Your task to perform on an android device: Open accessibility settings Image 0: 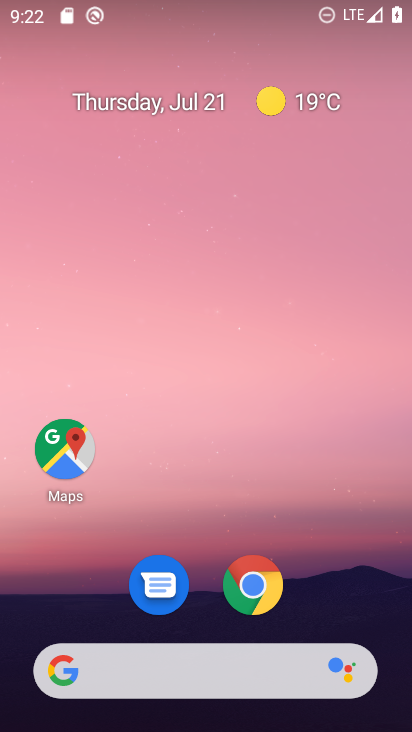
Step 0: drag from (337, 587) to (331, 32)
Your task to perform on an android device: Open accessibility settings Image 1: 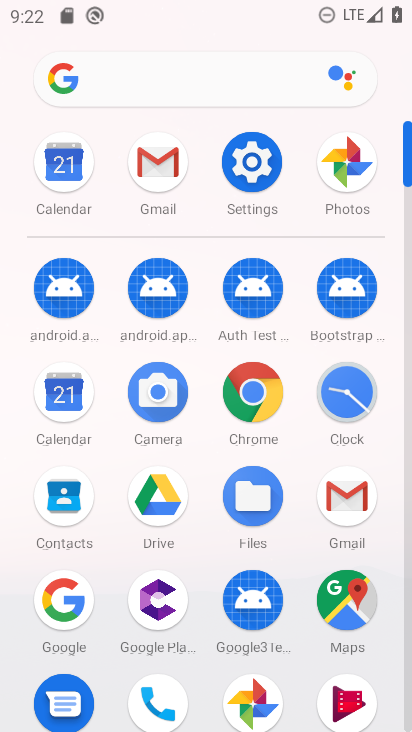
Step 1: click (262, 166)
Your task to perform on an android device: Open accessibility settings Image 2: 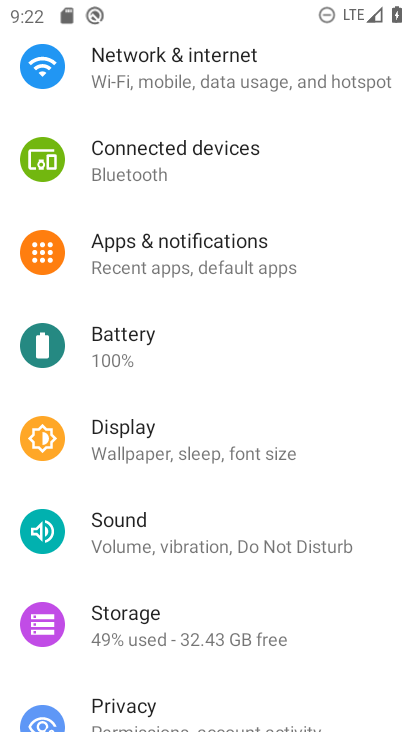
Step 2: drag from (273, 596) to (253, 25)
Your task to perform on an android device: Open accessibility settings Image 3: 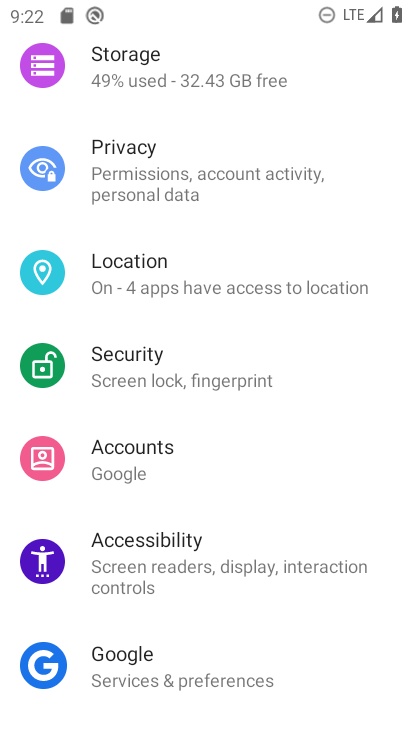
Step 3: click (204, 559)
Your task to perform on an android device: Open accessibility settings Image 4: 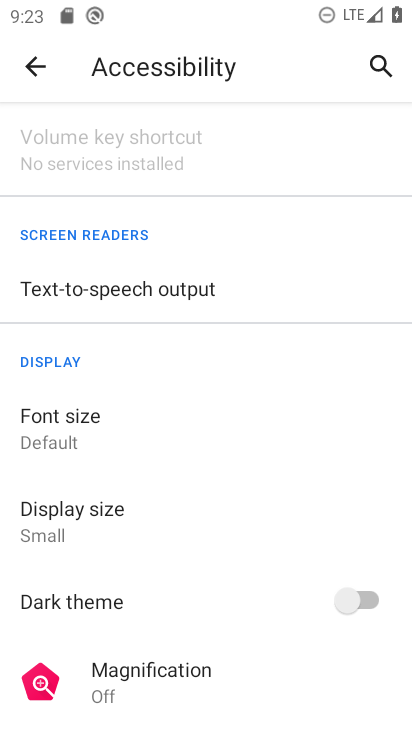
Step 4: task complete